Your task to perform on an android device: Open my contact list Image 0: 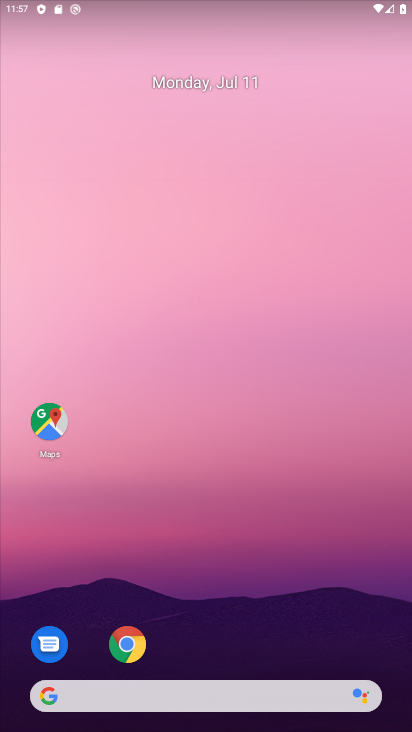
Step 0: drag from (35, 706) to (325, 519)
Your task to perform on an android device: Open my contact list Image 1: 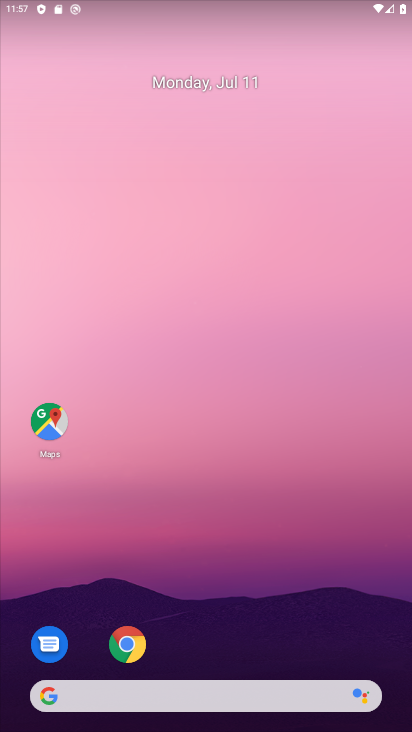
Step 1: drag from (234, 37) to (319, 32)
Your task to perform on an android device: Open my contact list Image 2: 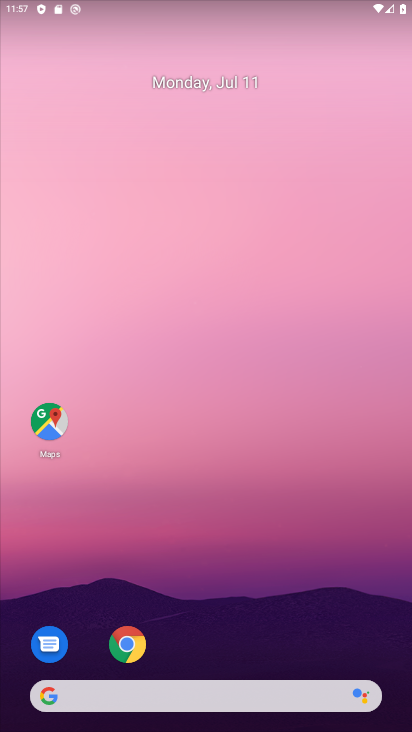
Step 2: drag from (8, 704) to (256, 53)
Your task to perform on an android device: Open my contact list Image 3: 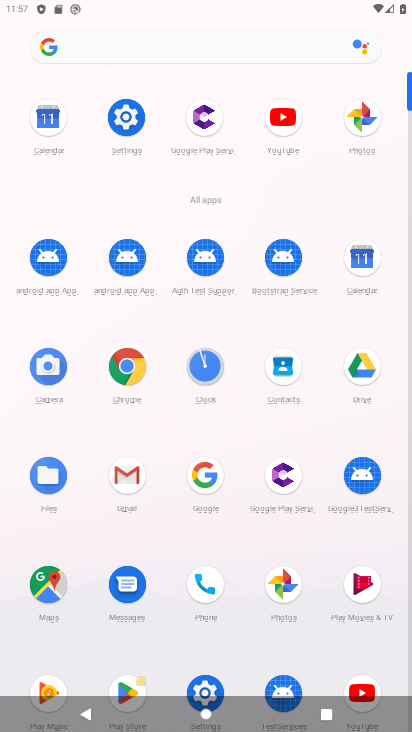
Step 3: click (285, 384)
Your task to perform on an android device: Open my contact list Image 4: 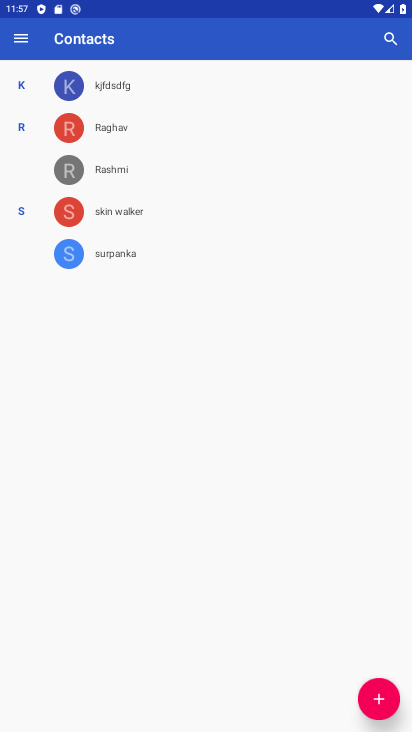
Step 4: task complete